Your task to perform on an android device: What's the weather today? Image 0: 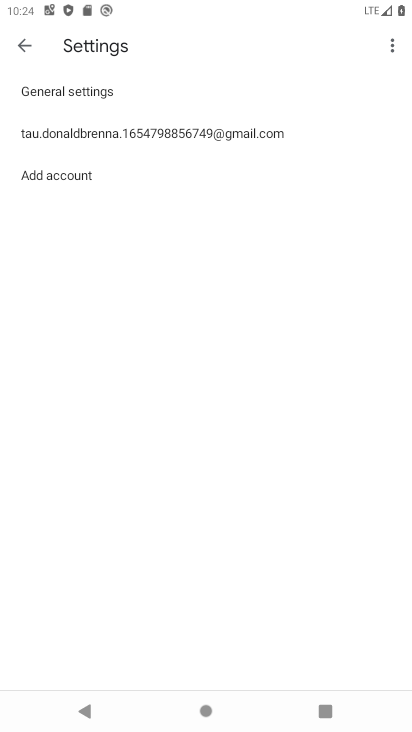
Step 0: press home button
Your task to perform on an android device: What's the weather today? Image 1: 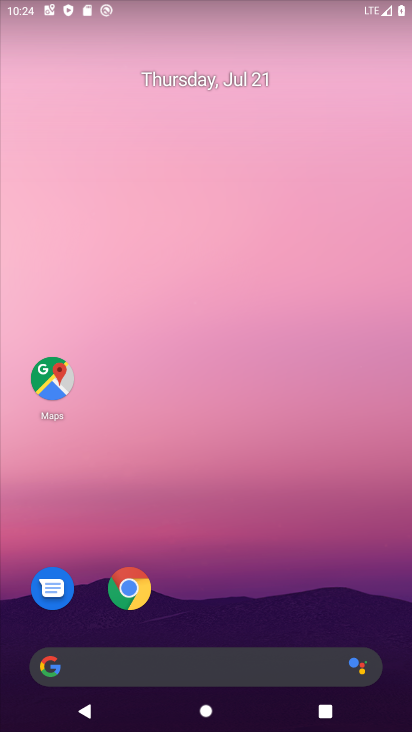
Step 1: task complete